Your task to perform on an android device: Open accessibility settings Image 0: 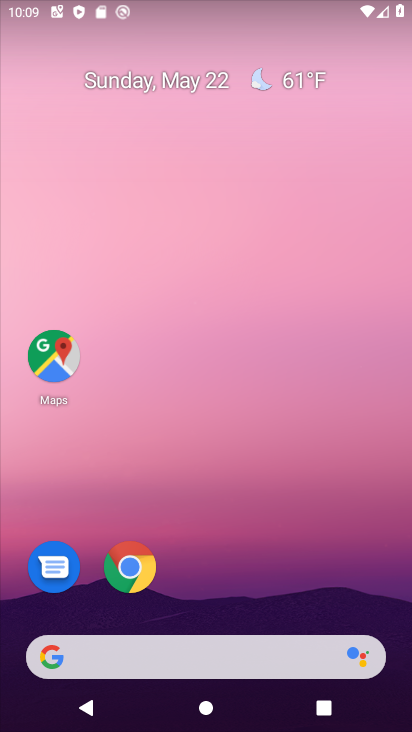
Step 0: drag from (222, 647) to (21, 5)
Your task to perform on an android device: Open accessibility settings Image 1: 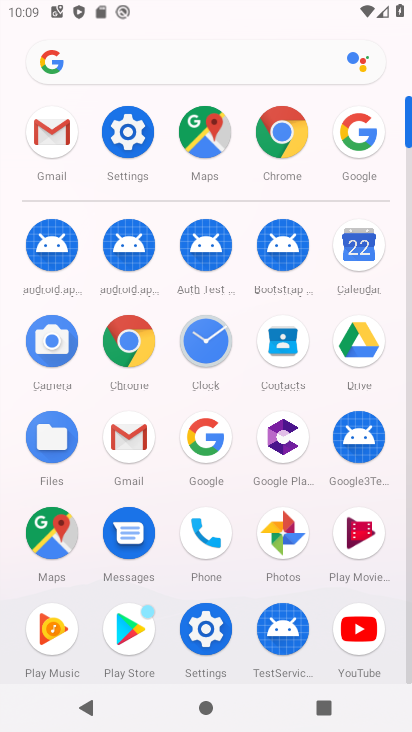
Step 1: click (118, 122)
Your task to perform on an android device: Open accessibility settings Image 2: 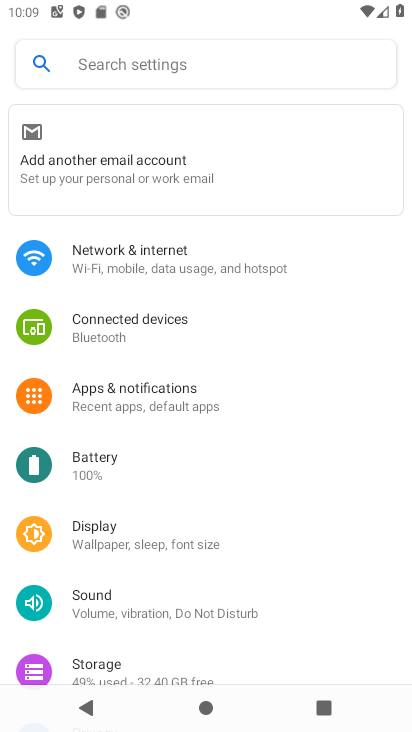
Step 2: drag from (140, 445) to (136, 203)
Your task to perform on an android device: Open accessibility settings Image 3: 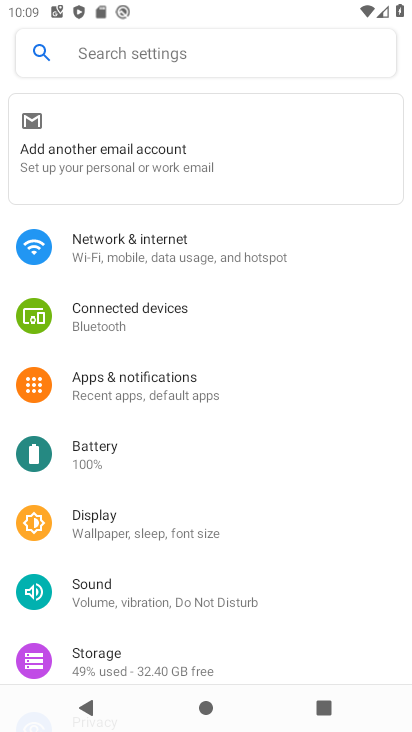
Step 3: drag from (131, 534) to (85, 15)
Your task to perform on an android device: Open accessibility settings Image 4: 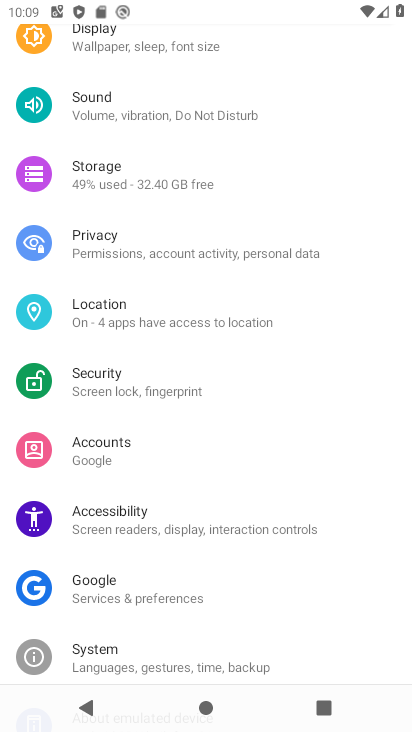
Step 4: click (119, 521)
Your task to perform on an android device: Open accessibility settings Image 5: 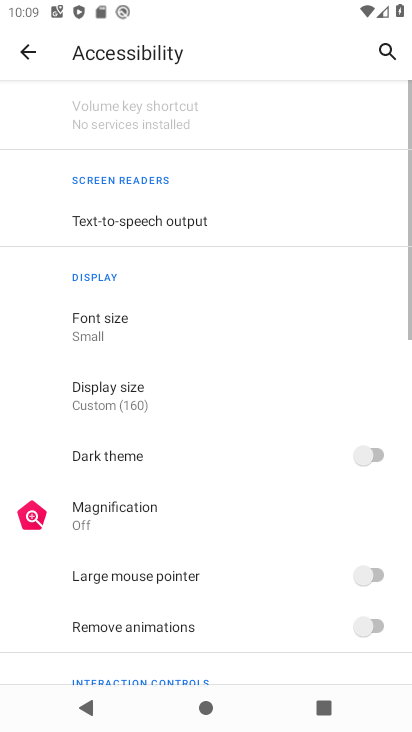
Step 5: task complete